Your task to perform on an android device: uninstall "Skype" Image 0: 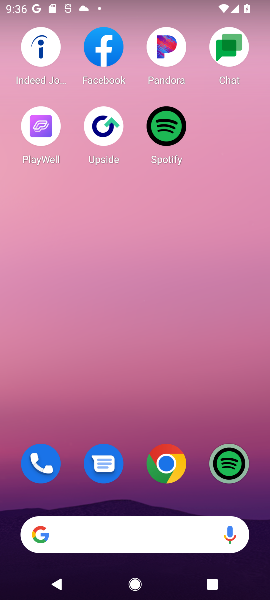
Step 0: press home button
Your task to perform on an android device: uninstall "Skype" Image 1: 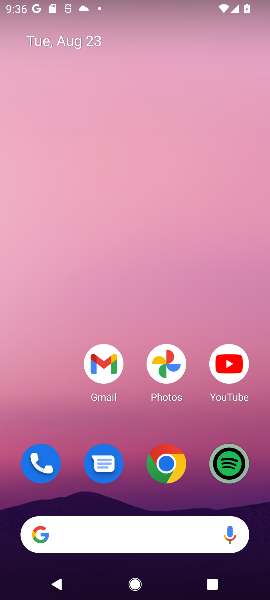
Step 1: drag from (136, 484) to (170, 66)
Your task to perform on an android device: uninstall "Skype" Image 2: 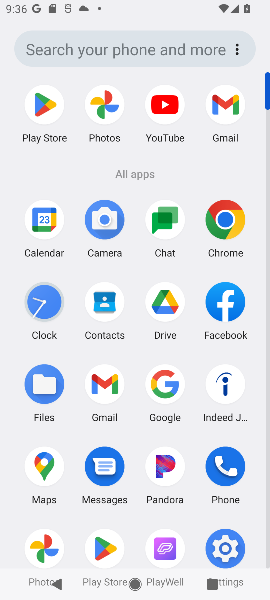
Step 2: click (46, 105)
Your task to perform on an android device: uninstall "Skype" Image 3: 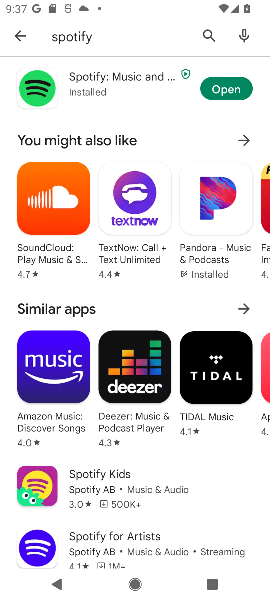
Step 3: click (211, 29)
Your task to perform on an android device: uninstall "Skype" Image 4: 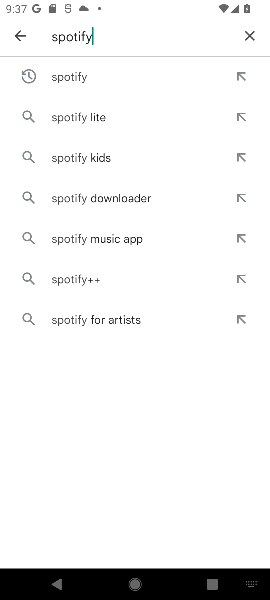
Step 4: click (244, 38)
Your task to perform on an android device: uninstall "Skype" Image 5: 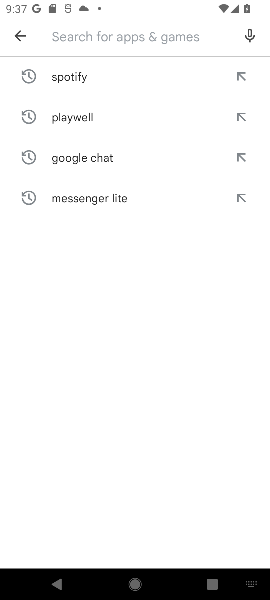
Step 5: type "Skype"
Your task to perform on an android device: uninstall "Skype" Image 6: 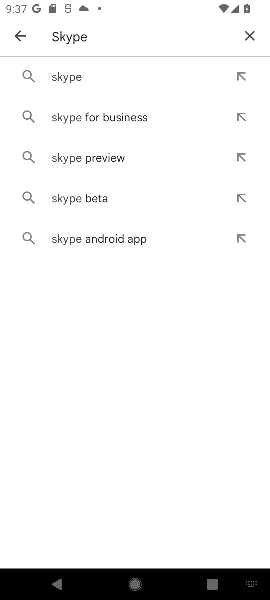
Step 6: click (88, 77)
Your task to perform on an android device: uninstall "Skype" Image 7: 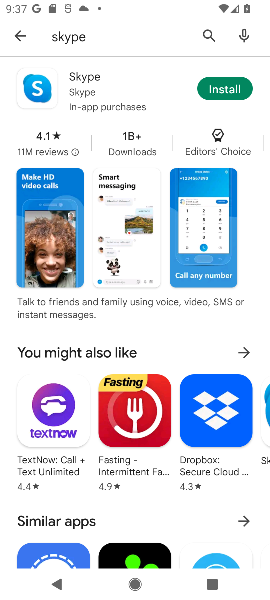
Step 7: task complete